Your task to perform on an android device: open wifi settings Image 0: 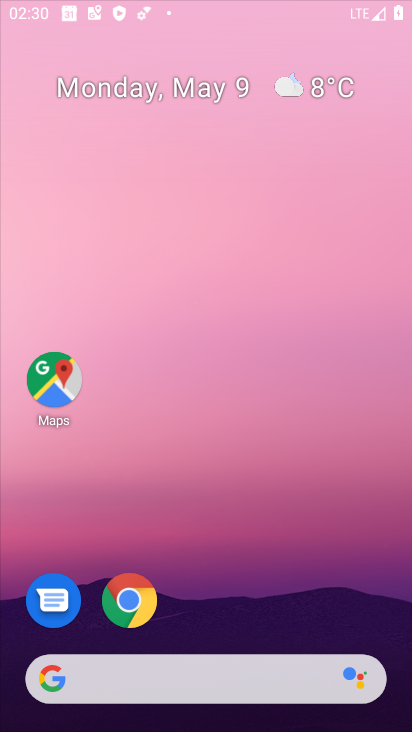
Step 0: press home button
Your task to perform on an android device: open wifi settings Image 1: 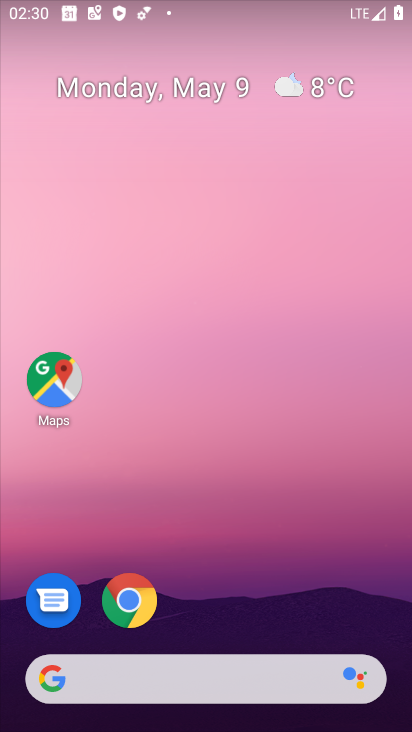
Step 1: drag from (217, 611) to (223, 1)
Your task to perform on an android device: open wifi settings Image 2: 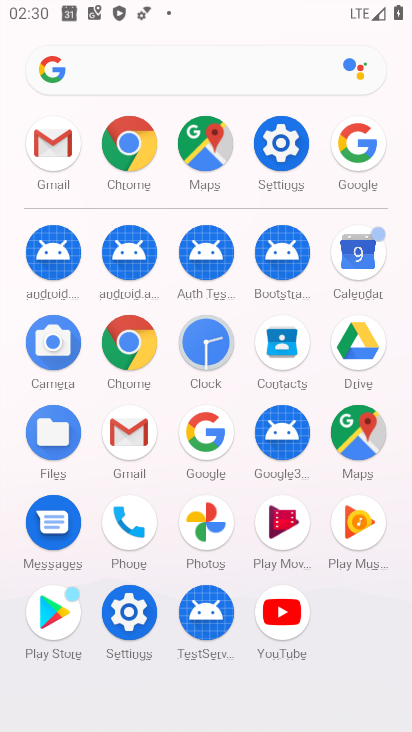
Step 2: click (278, 139)
Your task to perform on an android device: open wifi settings Image 3: 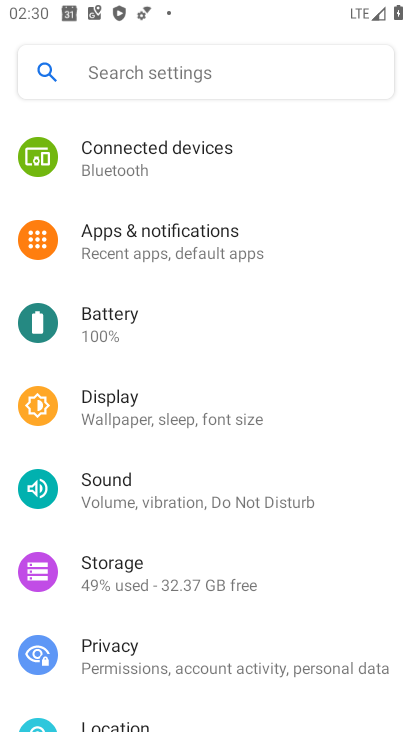
Step 3: drag from (196, 183) to (231, 672)
Your task to perform on an android device: open wifi settings Image 4: 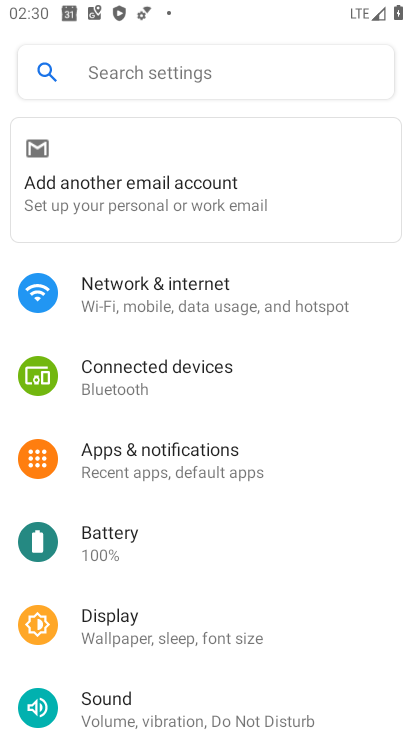
Step 4: click (214, 292)
Your task to perform on an android device: open wifi settings Image 5: 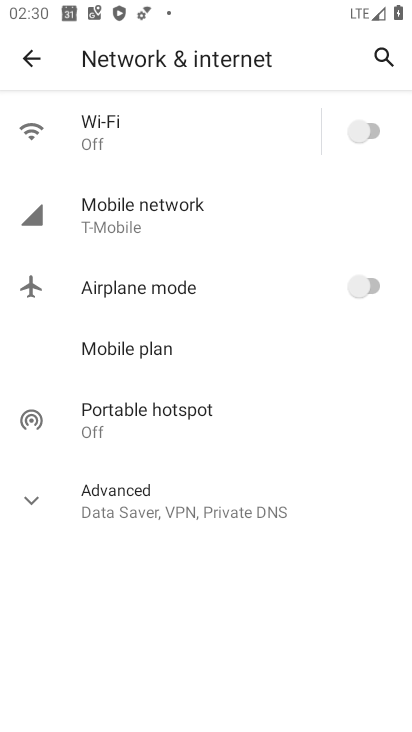
Step 5: click (377, 124)
Your task to perform on an android device: open wifi settings Image 6: 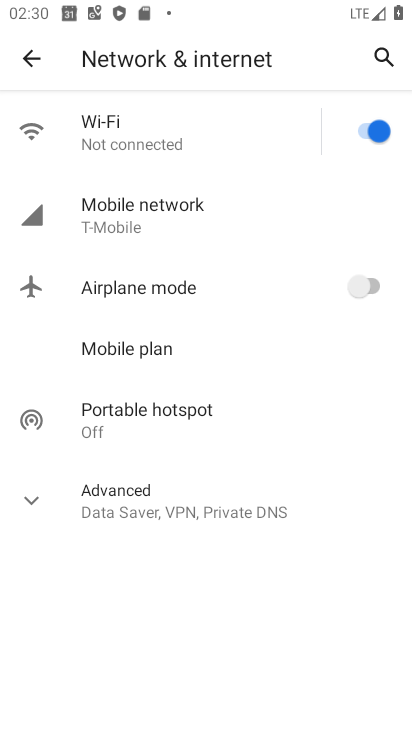
Step 6: click (264, 130)
Your task to perform on an android device: open wifi settings Image 7: 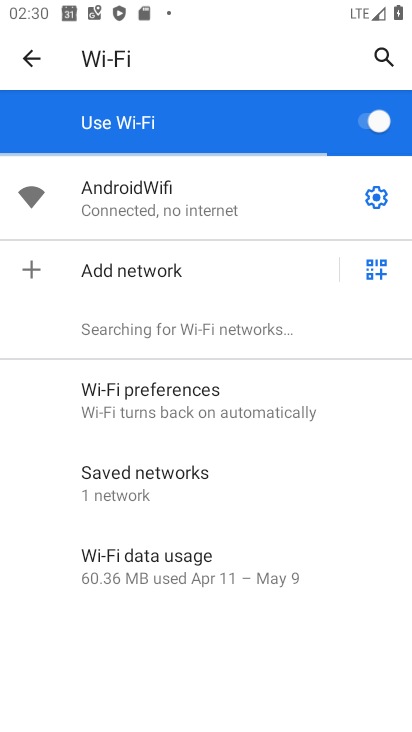
Step 7: task complete